Your task to perform on an android device: Search for vegetarian restaurants on Maps Image 0: 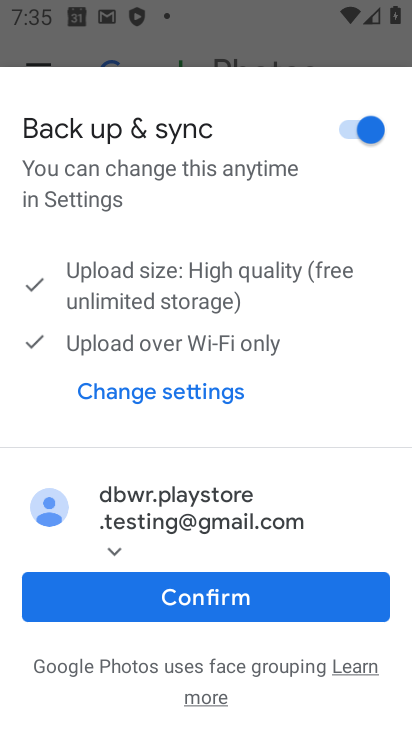
Step 0: press home button
Your task to perform on an android device: Search for vegetarian restaurants on Maps Image 1: 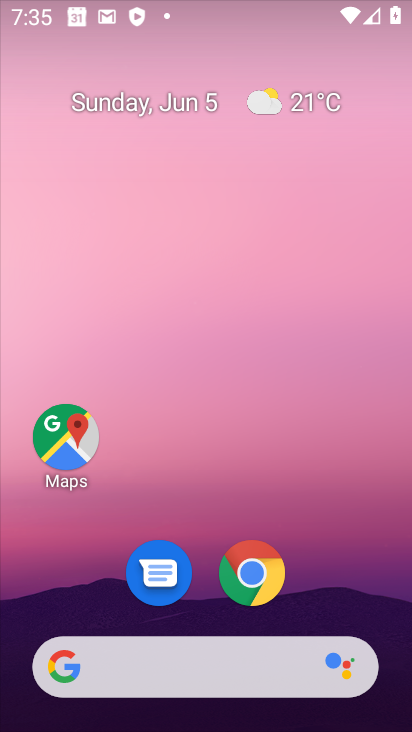
Step 1: click (74, 453)
Your task to perform on an android device: Search for vegetarian restaurants on Maps Image 2: 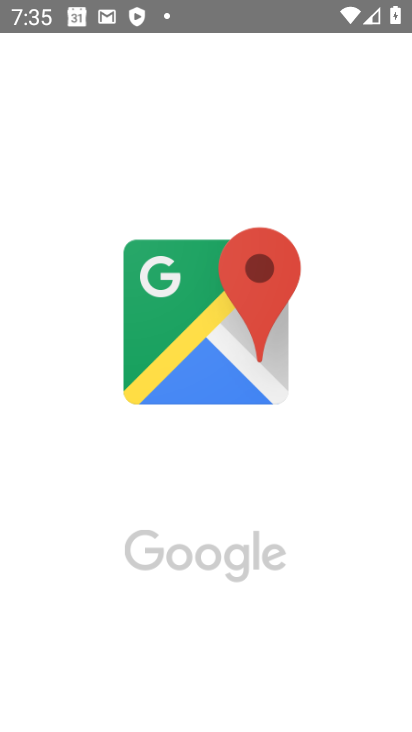
Step 2: click (306, 467)
Your task to perform on an android device: Search for vegetarian restaurants on Maps Image 3: 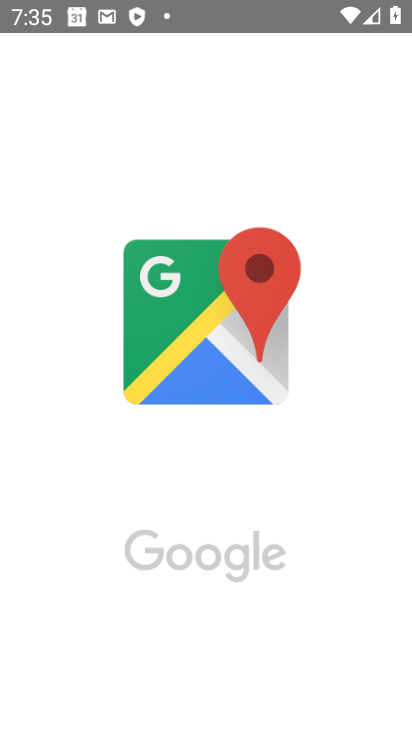
Step 3: task complete